Your task to perform on an android device: Open Amazon Image 0: 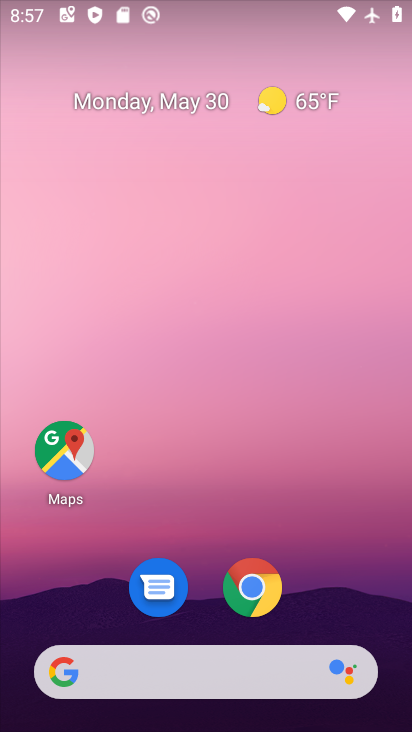
Step 0: click (262, 595)
Your task to perform on an android device: Open Amazon Image 1: 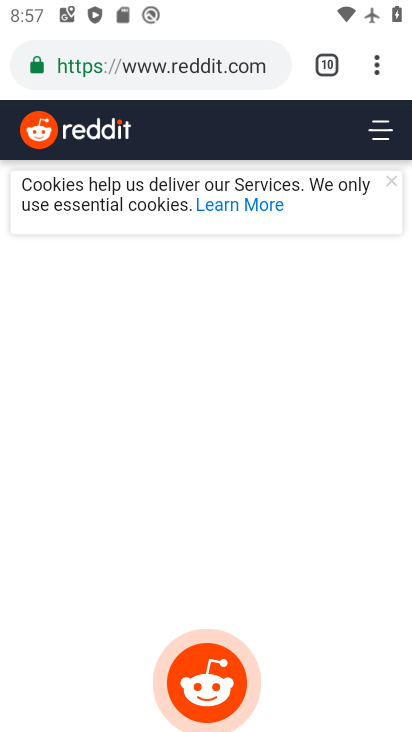
Step 1: drag from (374, 59) to (185, 124)
Your task to perform on an android device: Open Amazon Image 2: 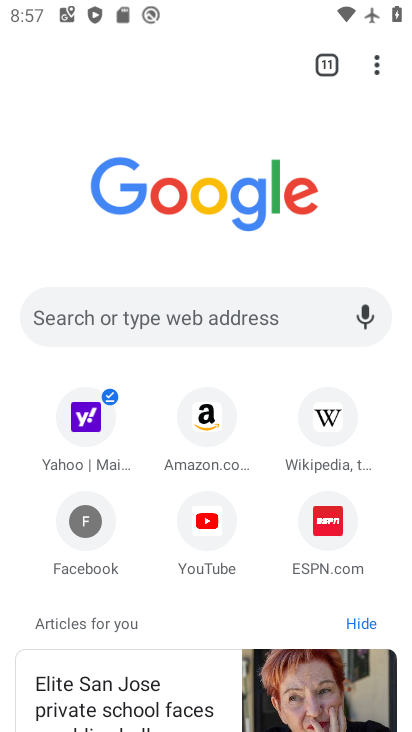
Step 2: click (210, 421)
Your task to perform on an android device: Open Amazon Image 3: 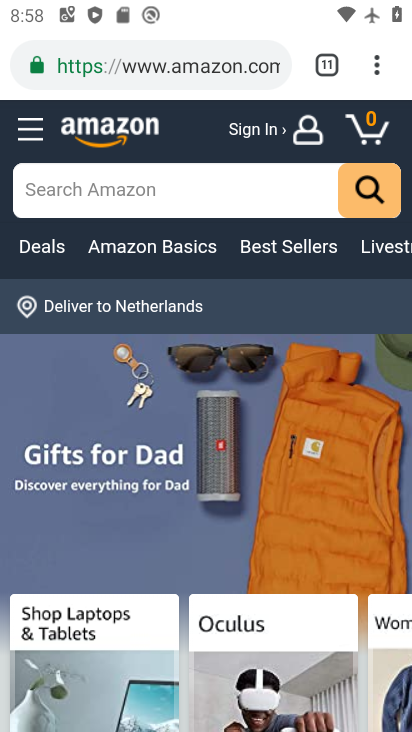
Step 3: task complete